Your task to perform on an android device: Go to Reddit.com Image 0: 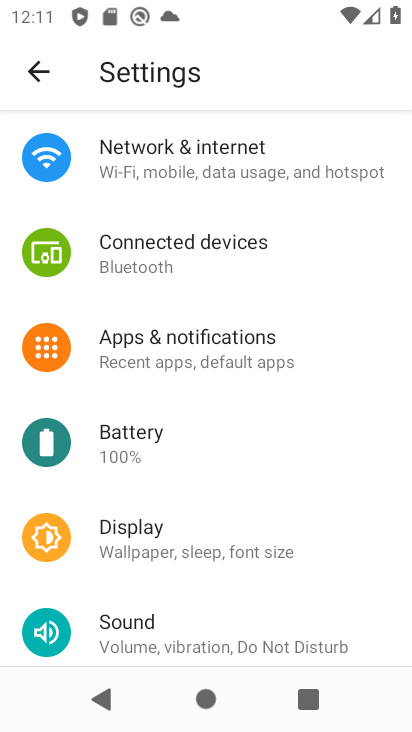
Step 0: press home button
Your task to perform on an android device: Go to Reddit.com Image 1: 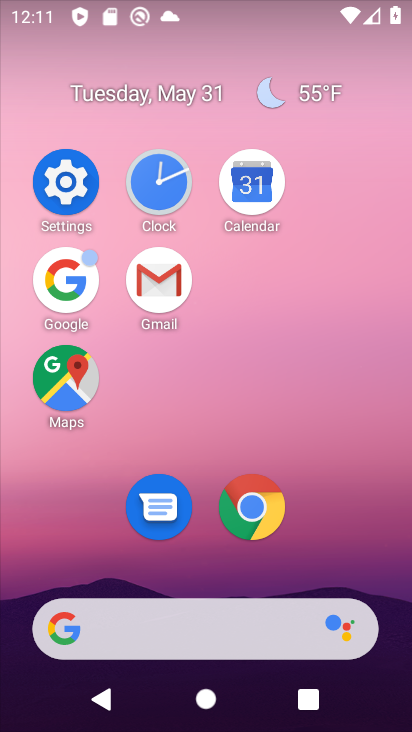
Step 1: click (250, 488)
Your task to perform on an android device: Go to Reddit.com Image 2: 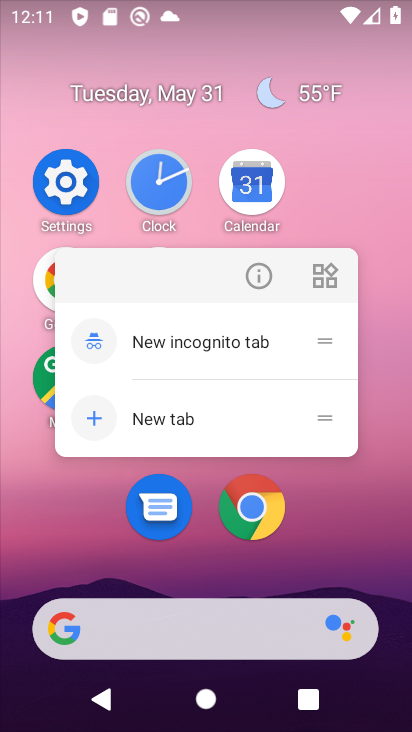
Step 2: click (250, 488)
Your task to perform on an android device: Go to Reddit.com Image 3: 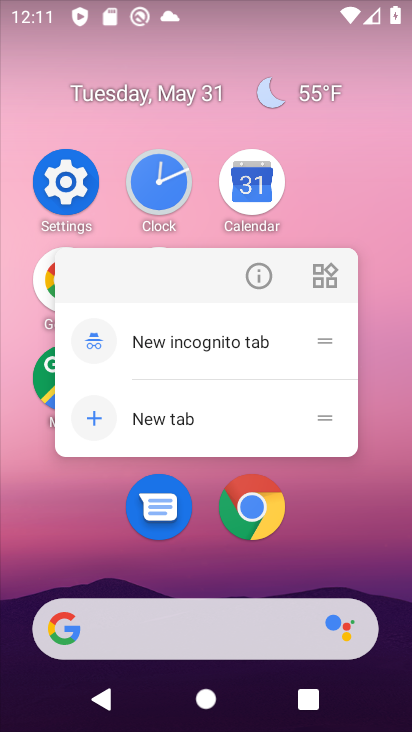
Step 3: click (250, 488)
Your task to perform on an android device: Go to Reddit.com Image 4: 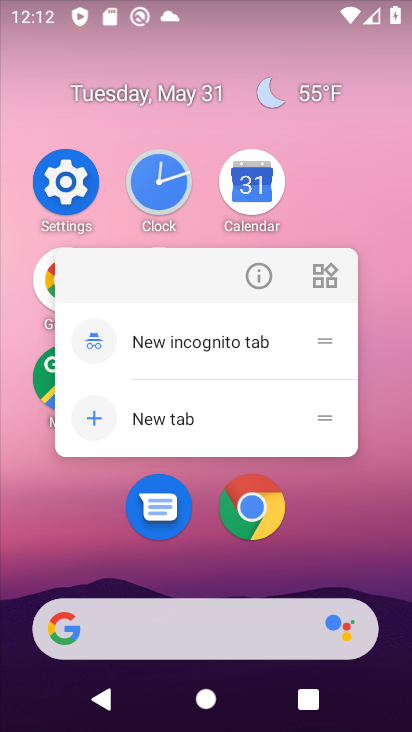
Step 4: click (250, 488)
Your task to perform on an android device: Go to Reddit.com Image 5: 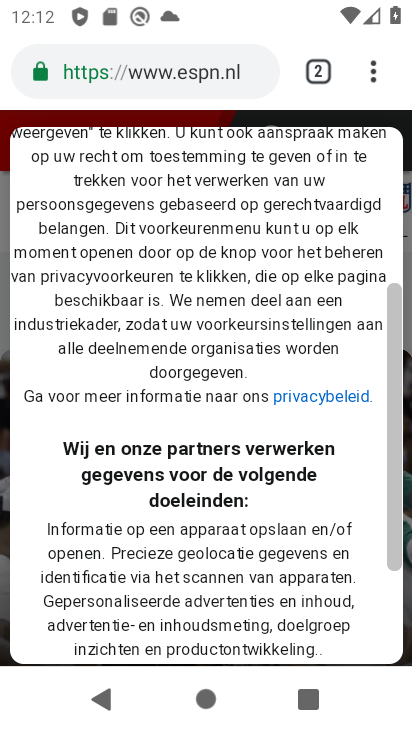
Step 5: click (333, 64)
Your task to perform on an android device: Go to Reddit.com Image 6: 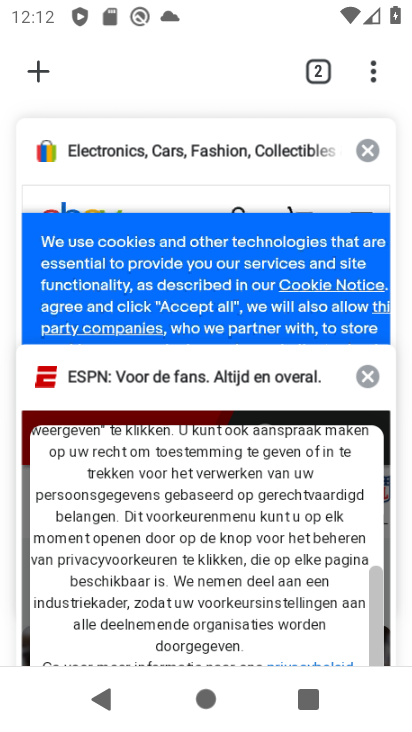
Step 6: click (31, 75)
Your task to perform on an android device: Go to Reddit.com Image 7: 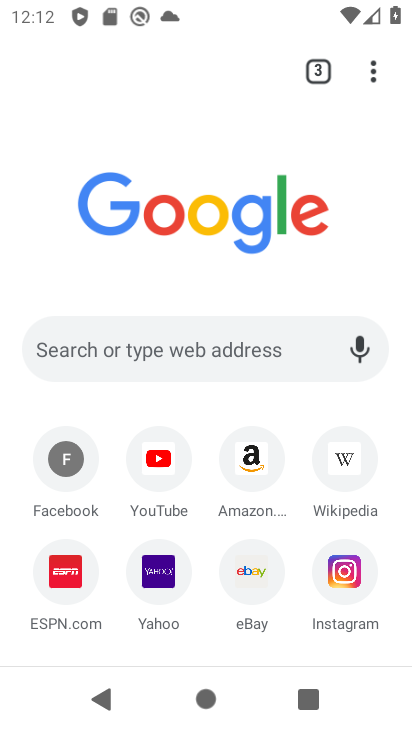
Step 7: click (172, 352)
Your task to perform on an android device: Go to Reddit.com Image 8: 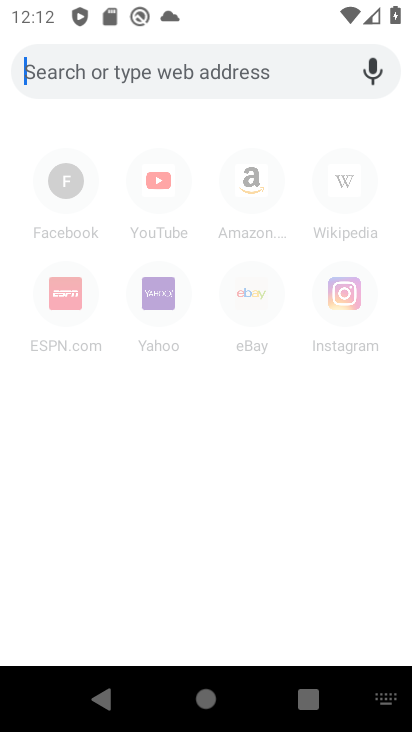
Step 8: type "reddit"
Your task to perform on an android device: Go to Reddit.com Image 9: 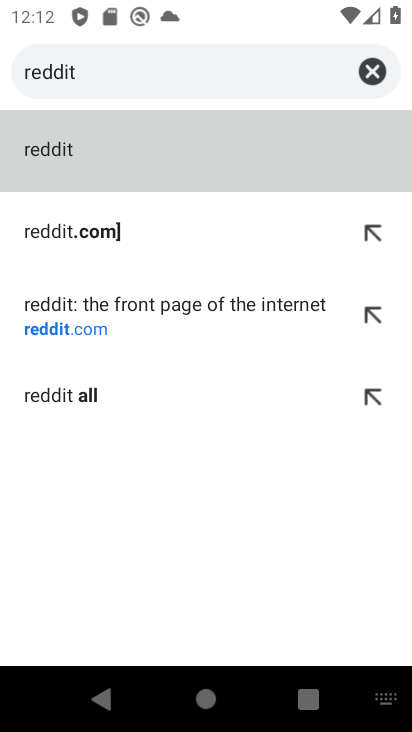
Step 9: click (104, 316)
Your task to perform on an android device: Go to Reddit.com Image 10: 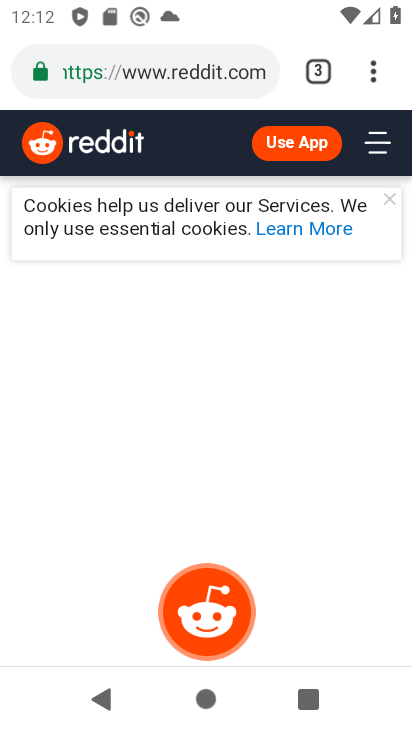
Step 10: task complete